Your task to perform on an android device: Open my contact list Image 0: 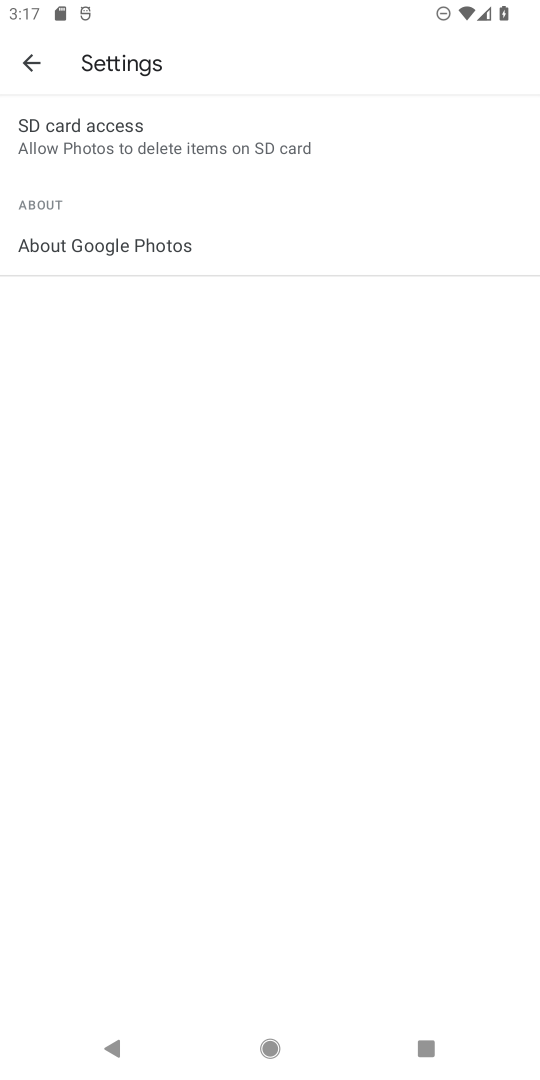
Step 0: click (433, 975)
Your task to perform on an android device: Open my contact list Image 1: 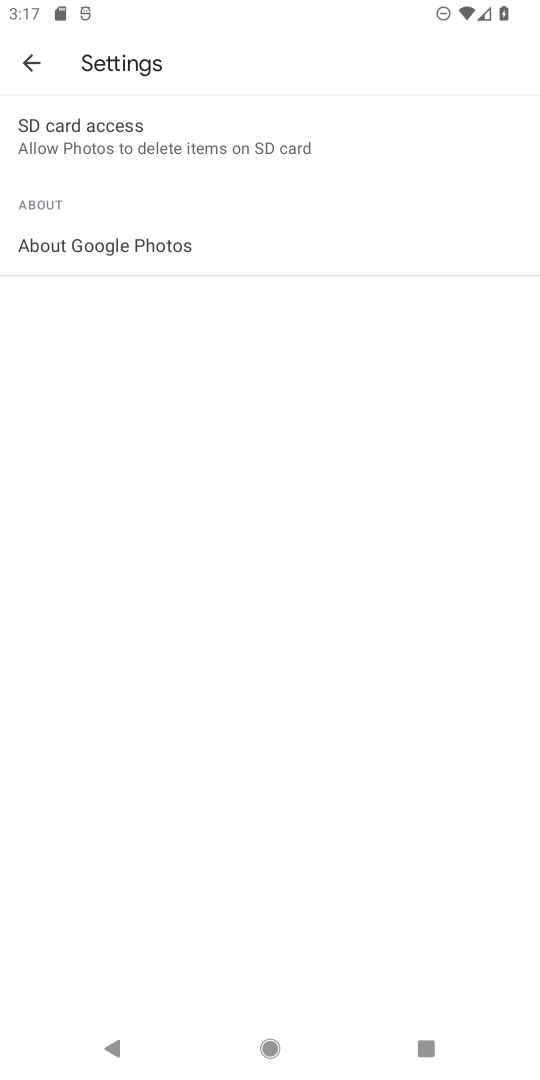
Step 1: press home button
Your task to perform on an android device: Open my contact list Image 2: 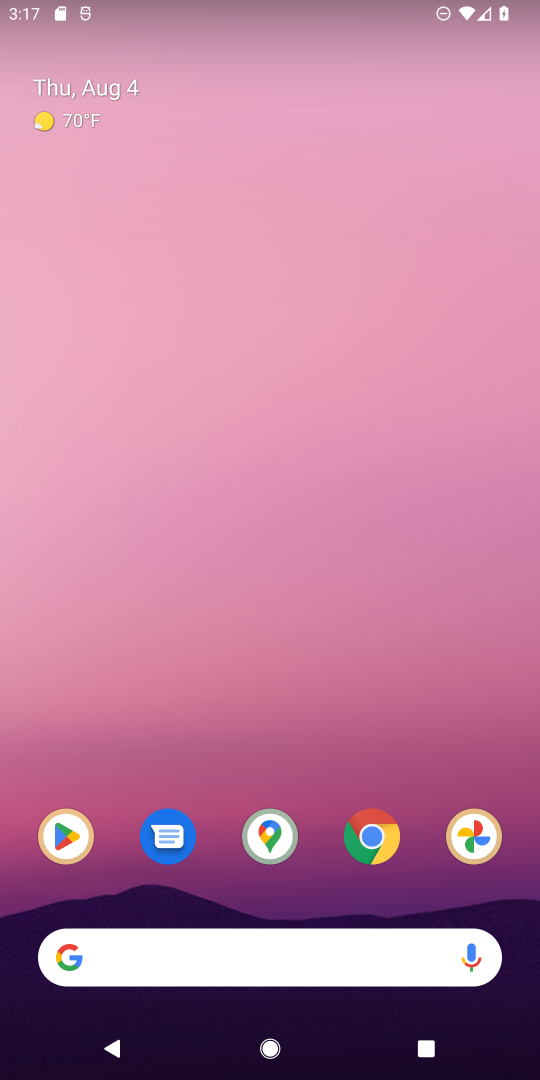
Step 2: drag from (268, 992) to (298, 87)
Your task to perform on an android device: Open my contact list Image 3: 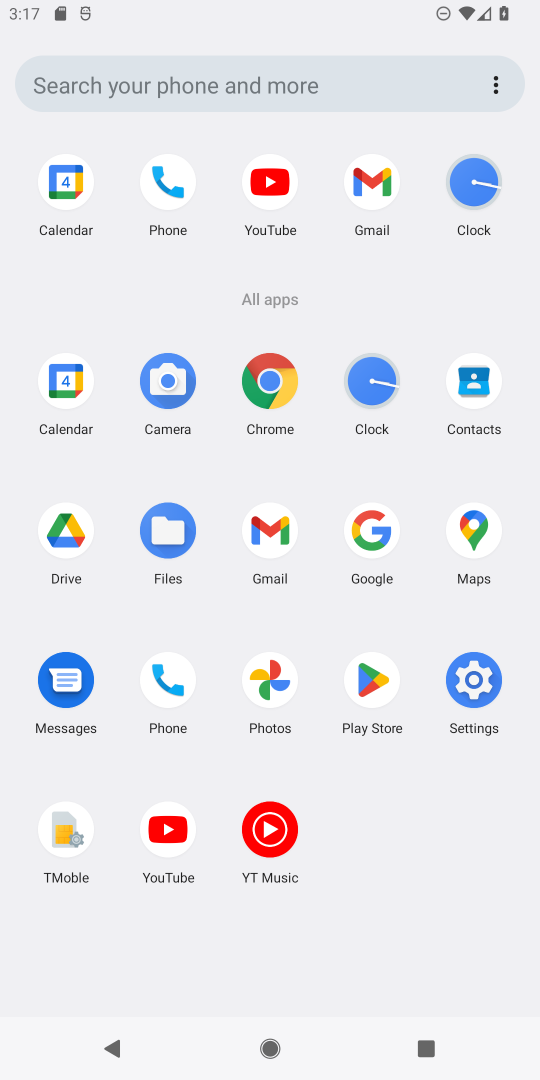
Step 3: click (457, 392)
Your task to perform on an android device: Open my contact list Image 4: 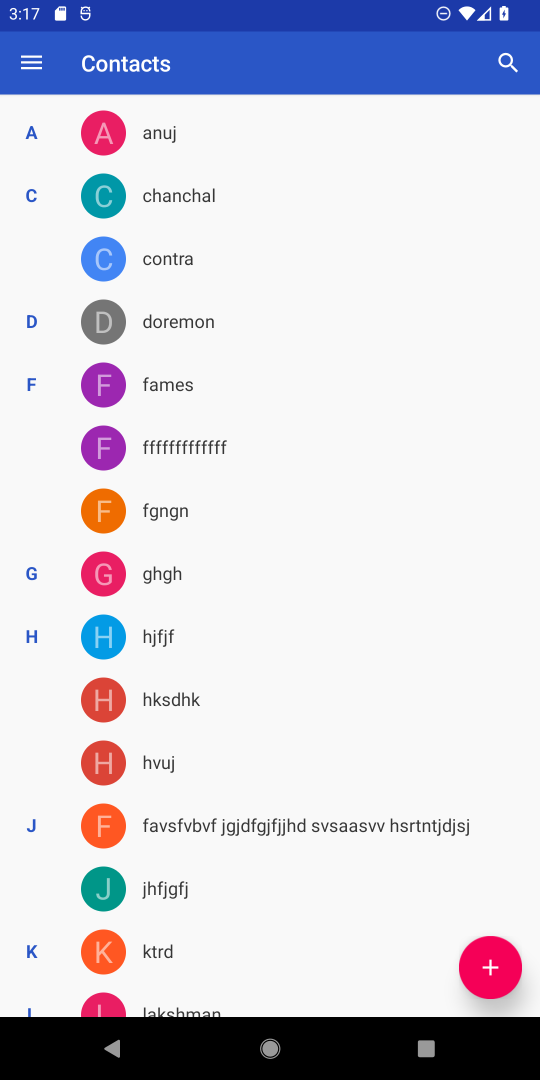
Step 4: task complete